Your task to perform on an android device: Add "logitech g903" to the cart on ebay Image 0: 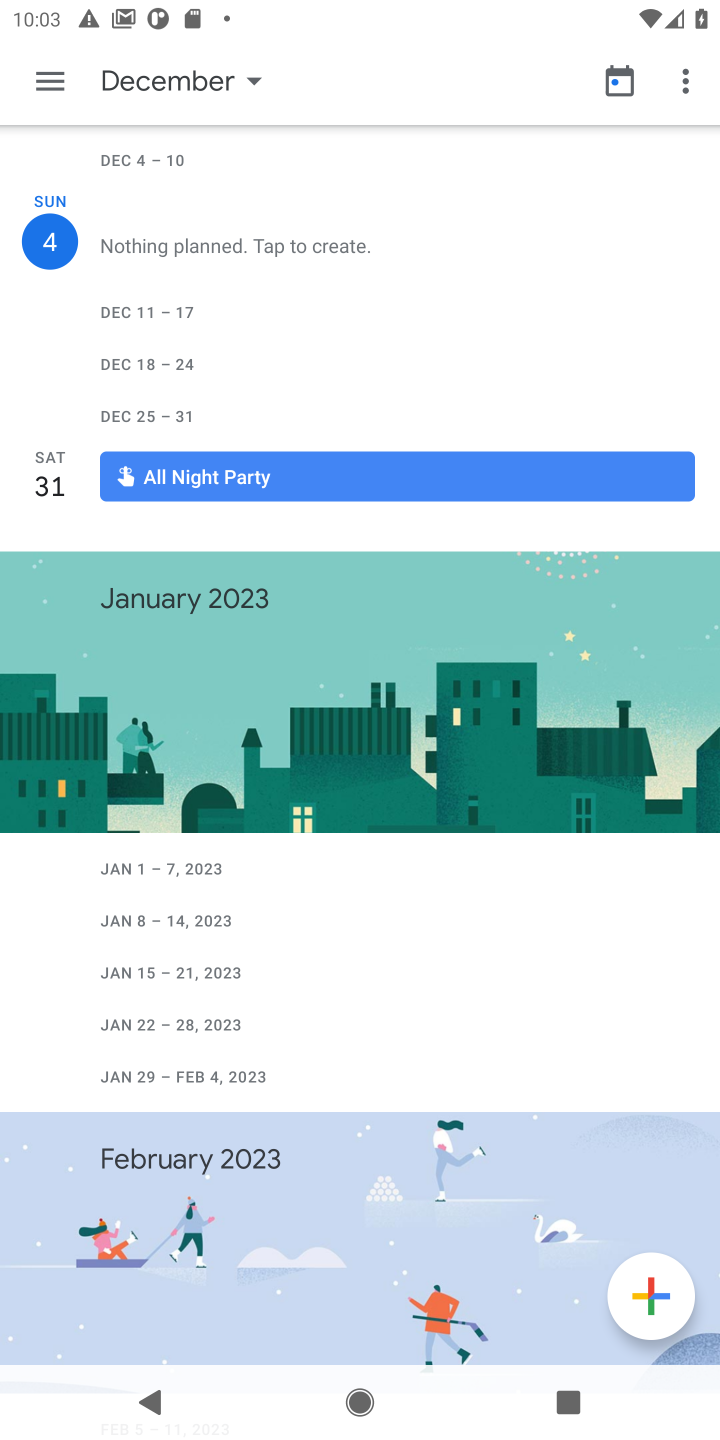
Step 0: press home button
Your task to perform on an android device: Add "logitech g903" to the cart on ebay Image 1: 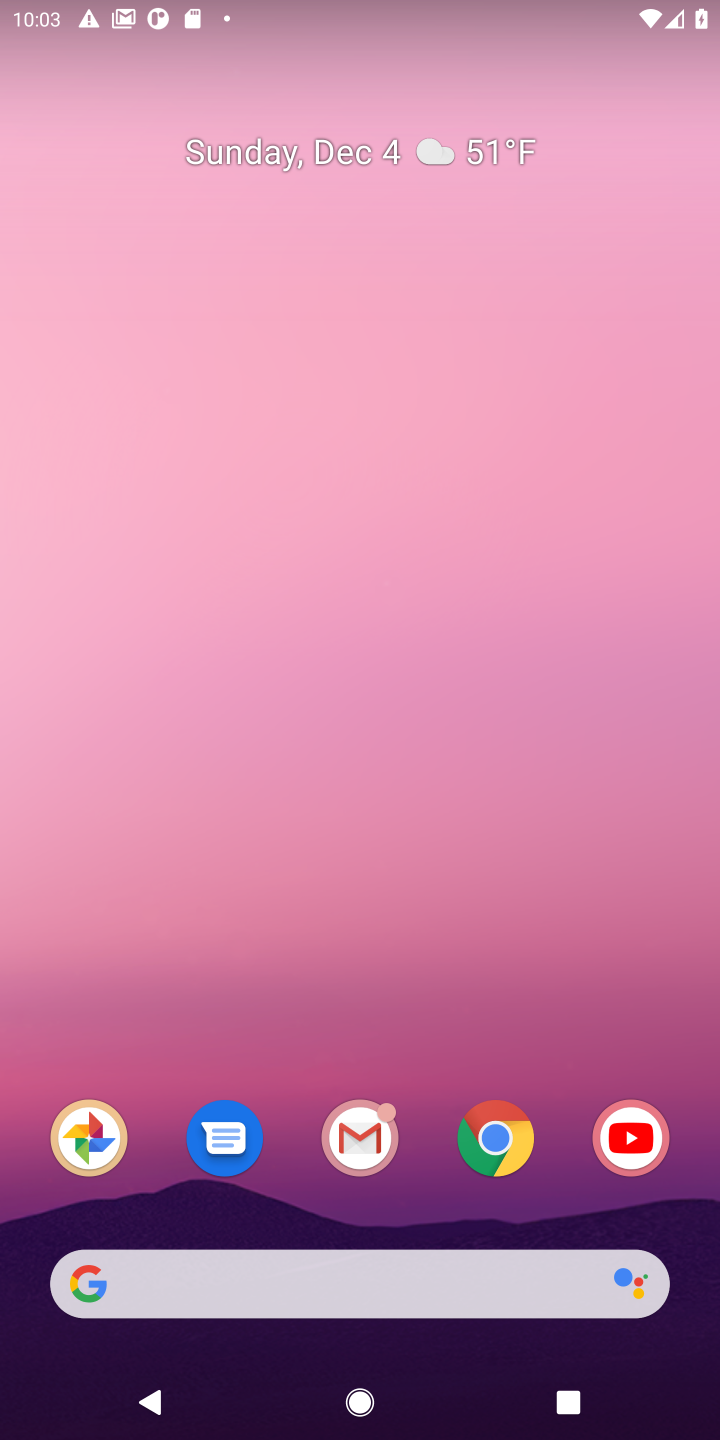
Step 1: click (514, 1138)
Your task to perform on an android device: Add "logitech g903" to the cart on ebay Image 2: 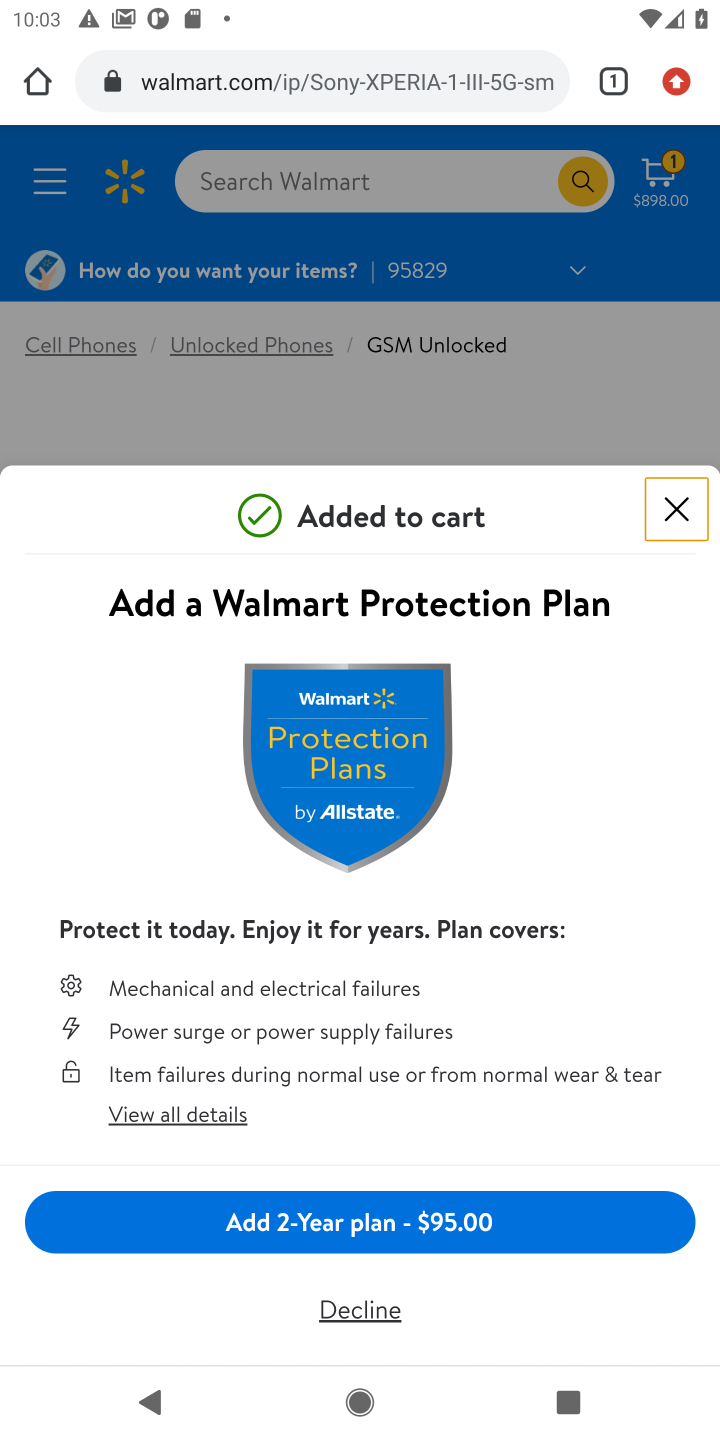
Step 2: click (504, 77)
Your task to perform on an android device: Add "logitech g903" to the cart on ebay Image 3: 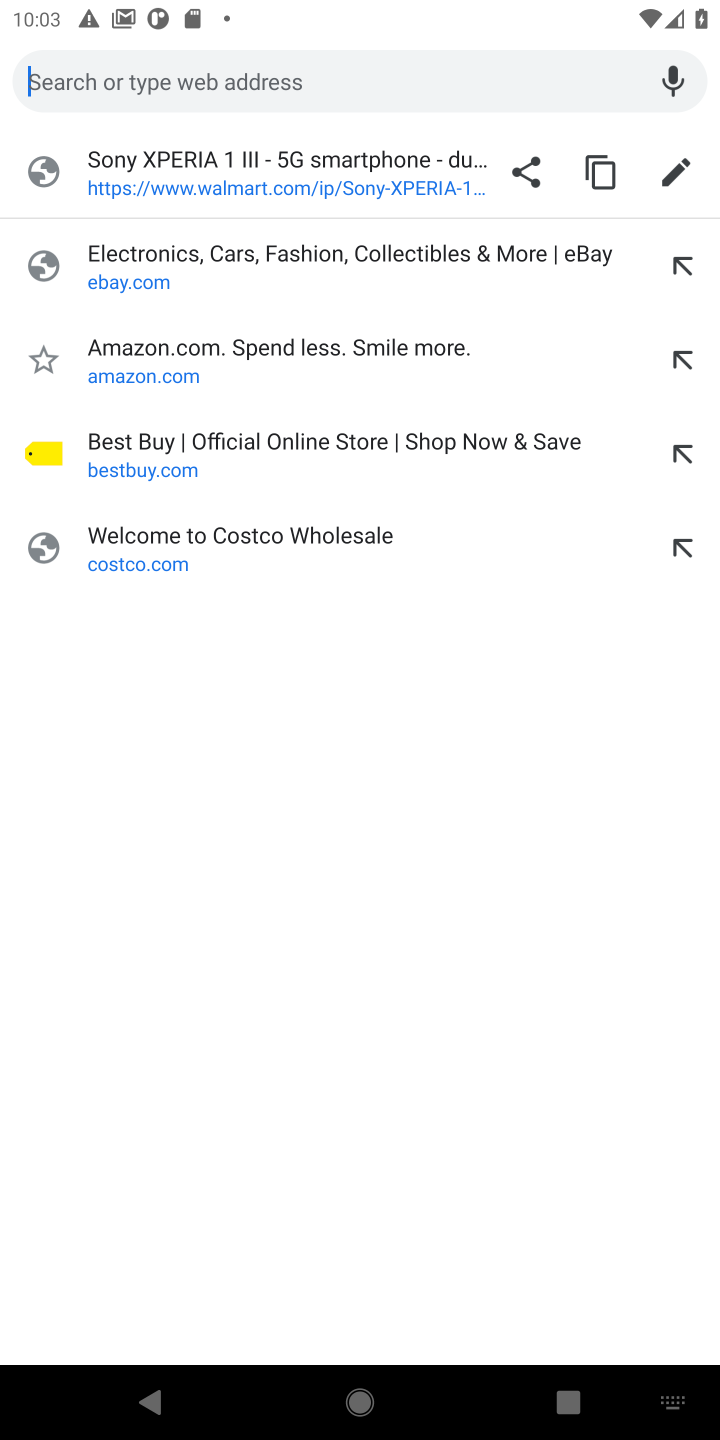
Step 3: click (155, 247)
Your task to perform on an android device: Add "logitech g903" to the cart on ebay Image 4: 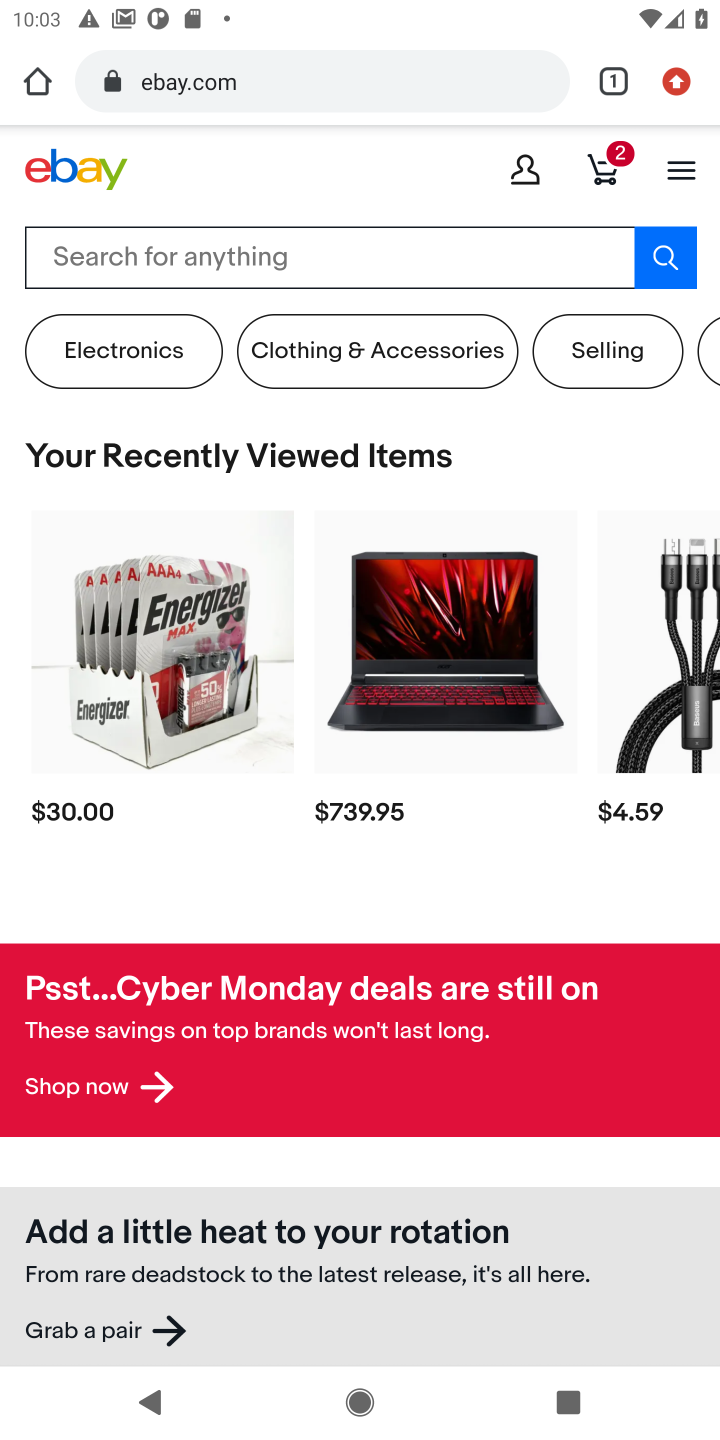
Step 4: click (523, 242)
Your task to perform on an android device: Add "logitech g903" to the cart on ebay Image 5: 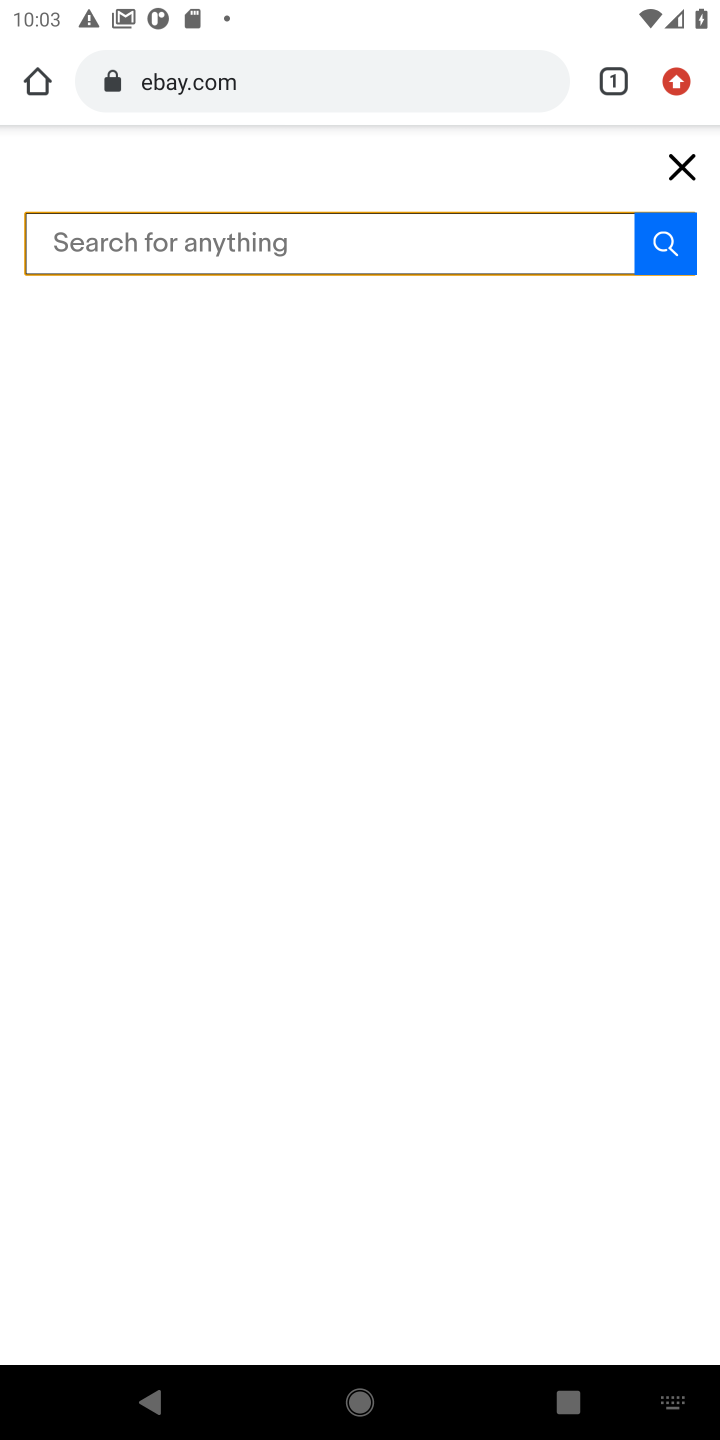
Step 5: type "logitech g903"
Your task to perform on an android device: Add "logitech g903" to the cart on ebay Image 6: 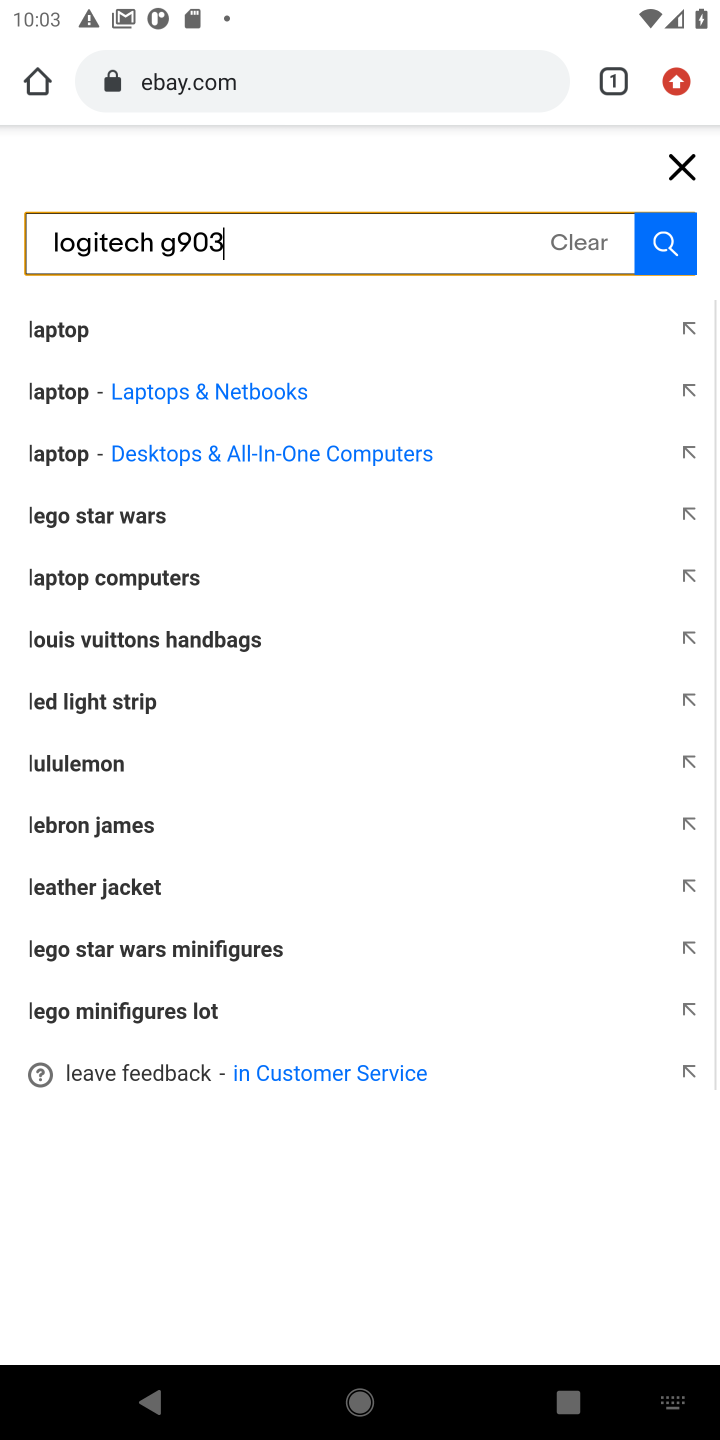
Step 6: press enter
Your task to perform on an android device: Add "logitech g903" to the cart on ebay Image 7: 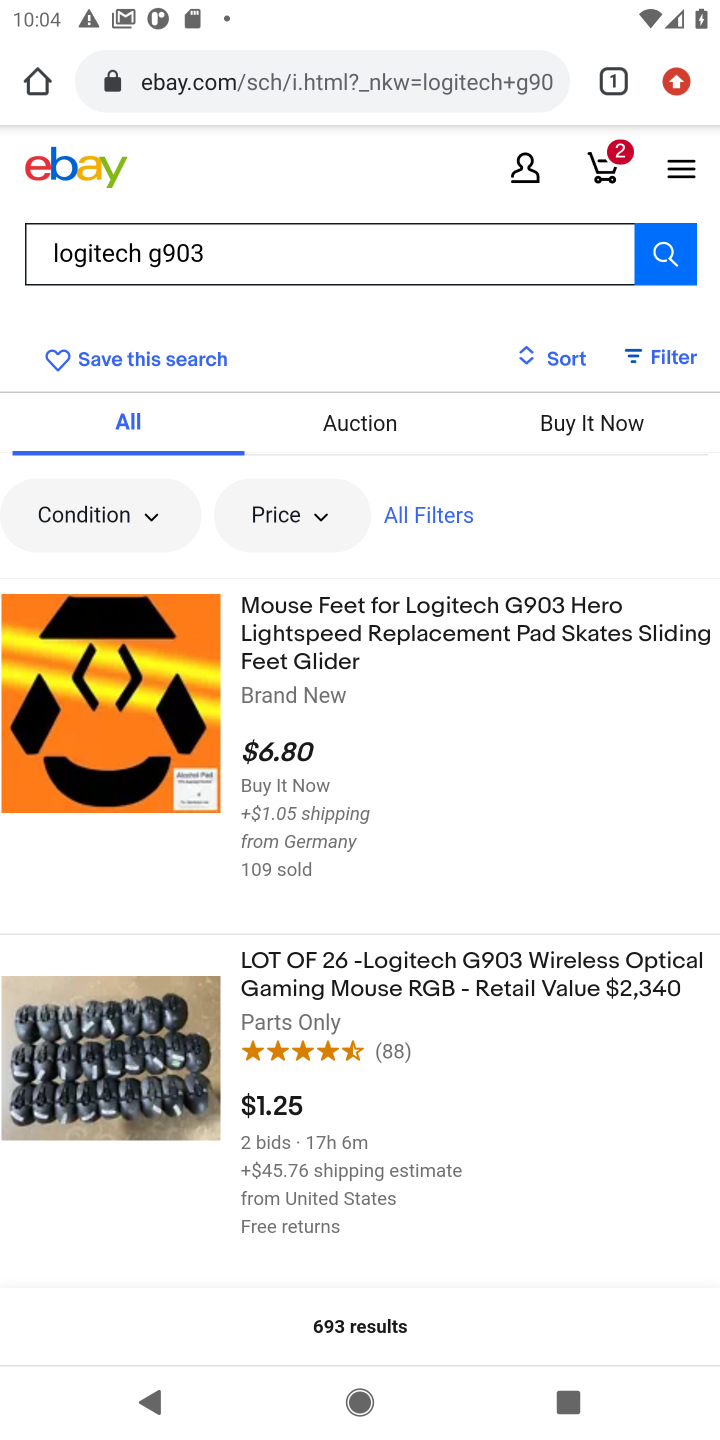
Step 7: click (346, 620)
Your task to perform on an android device: Add "logitech g903" to the cart on ebay Image 8: 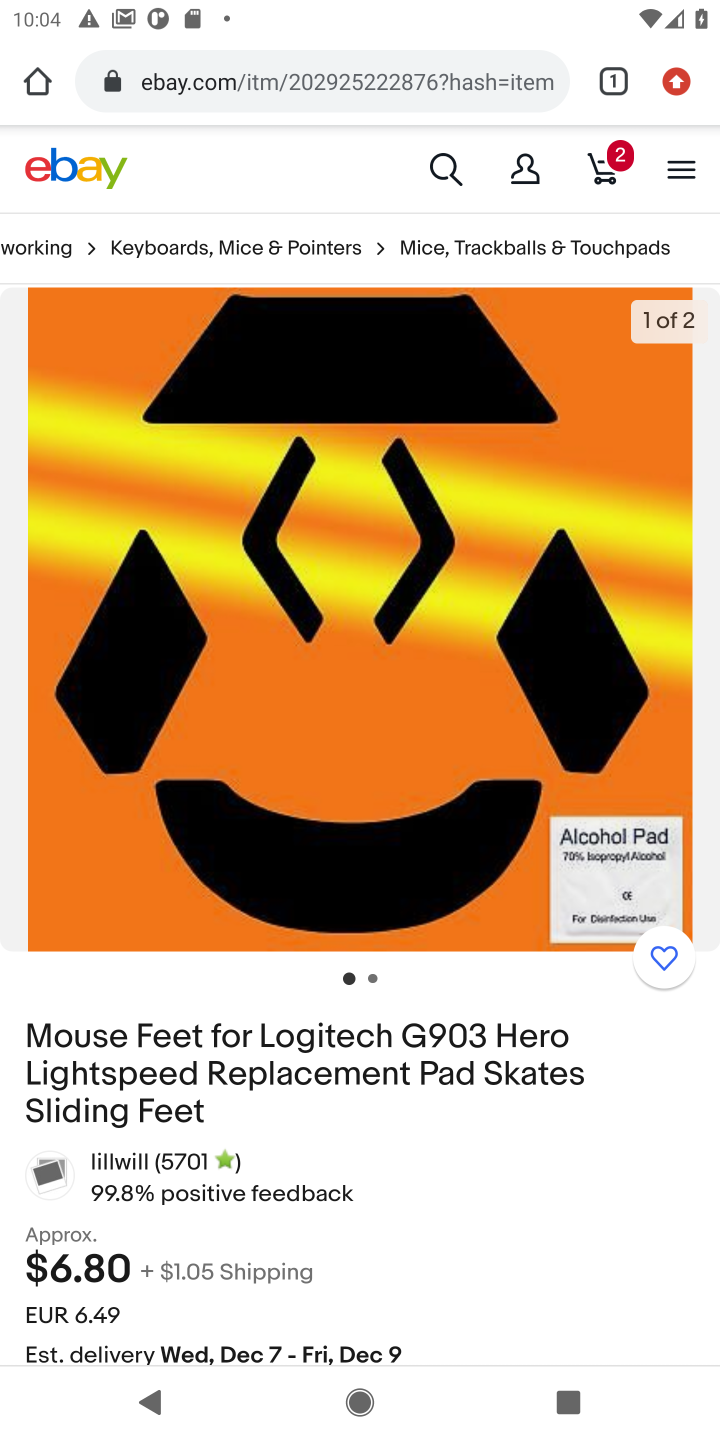
Step 8: press back button
Your task to perform on an android device: Add "logitech g903" to the cart on ebay Image 9: 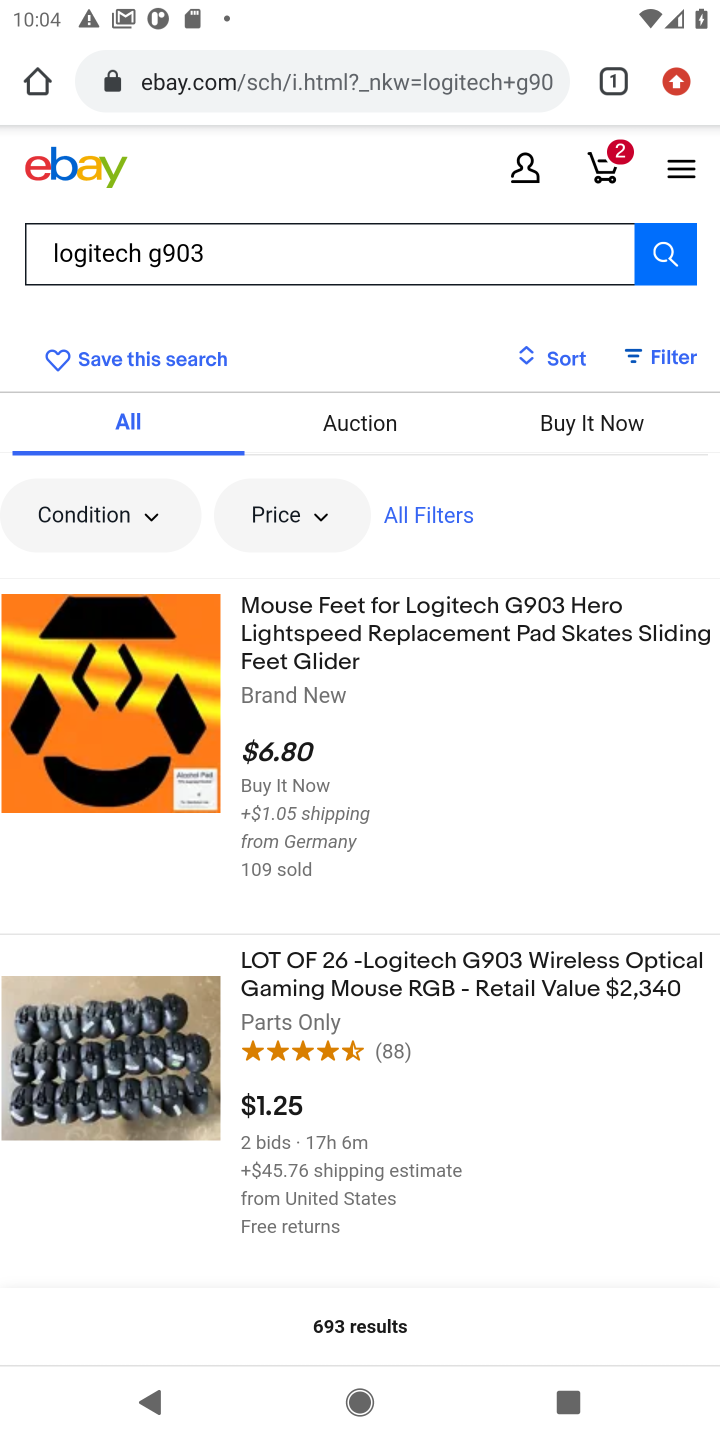
Step 9: drag from (564, 1198) to (532, 480)
Your task to perform on an android device: Add "logitech g903" to the cart on ebay Image 10: 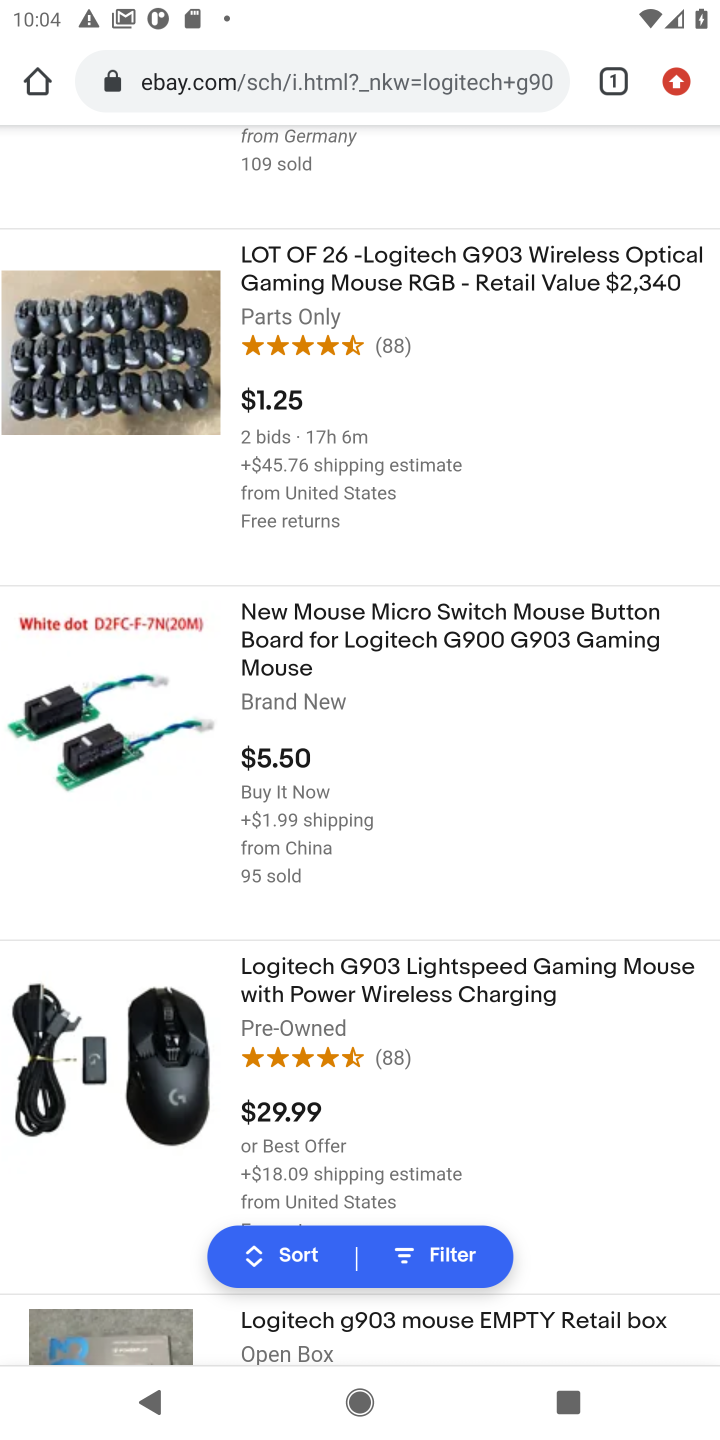
Step 10: click (139, 1034)
Your task to perform on an android device: Add "logitech g903" to the cart on ebay Image 11: 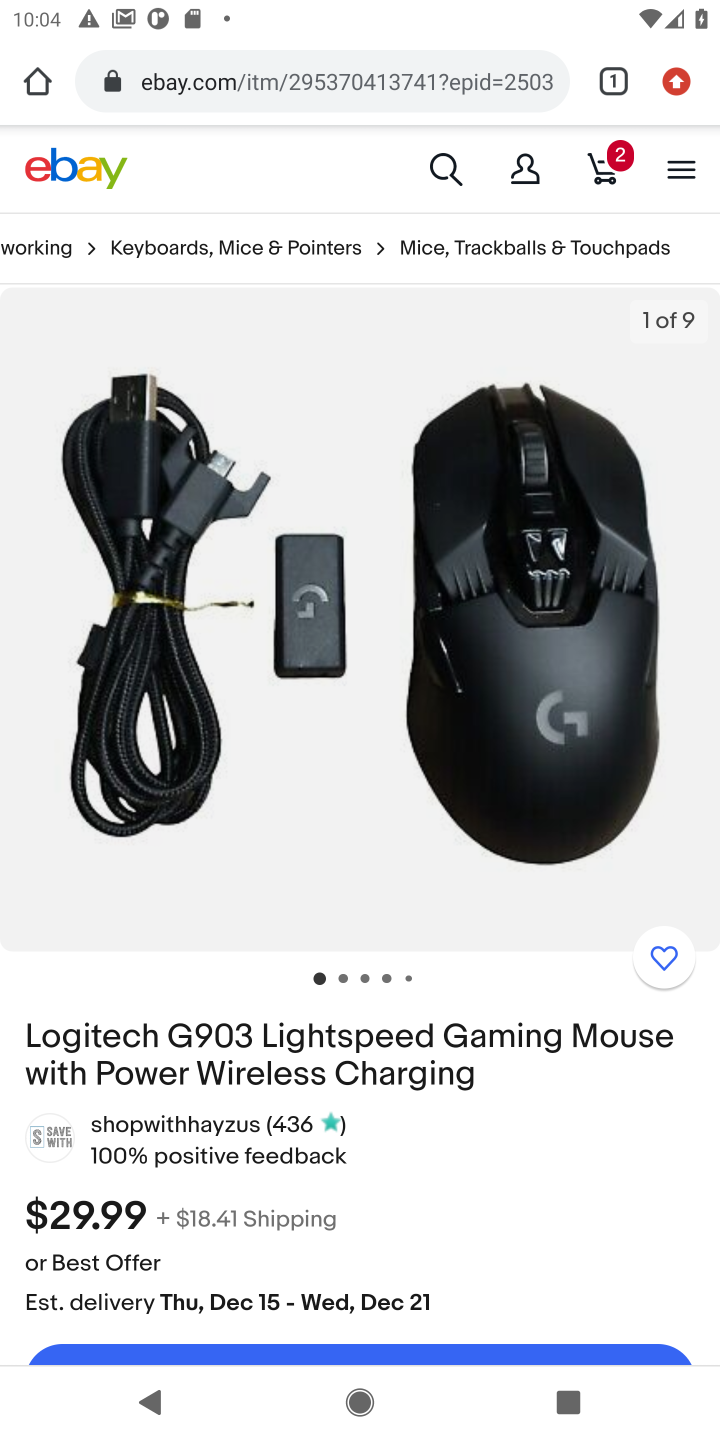
Step 11: drag from (557, 1146) to (465, 641)
Your task to perform on an android device: Add "logitech g903" to the cart on ebay Image 12: 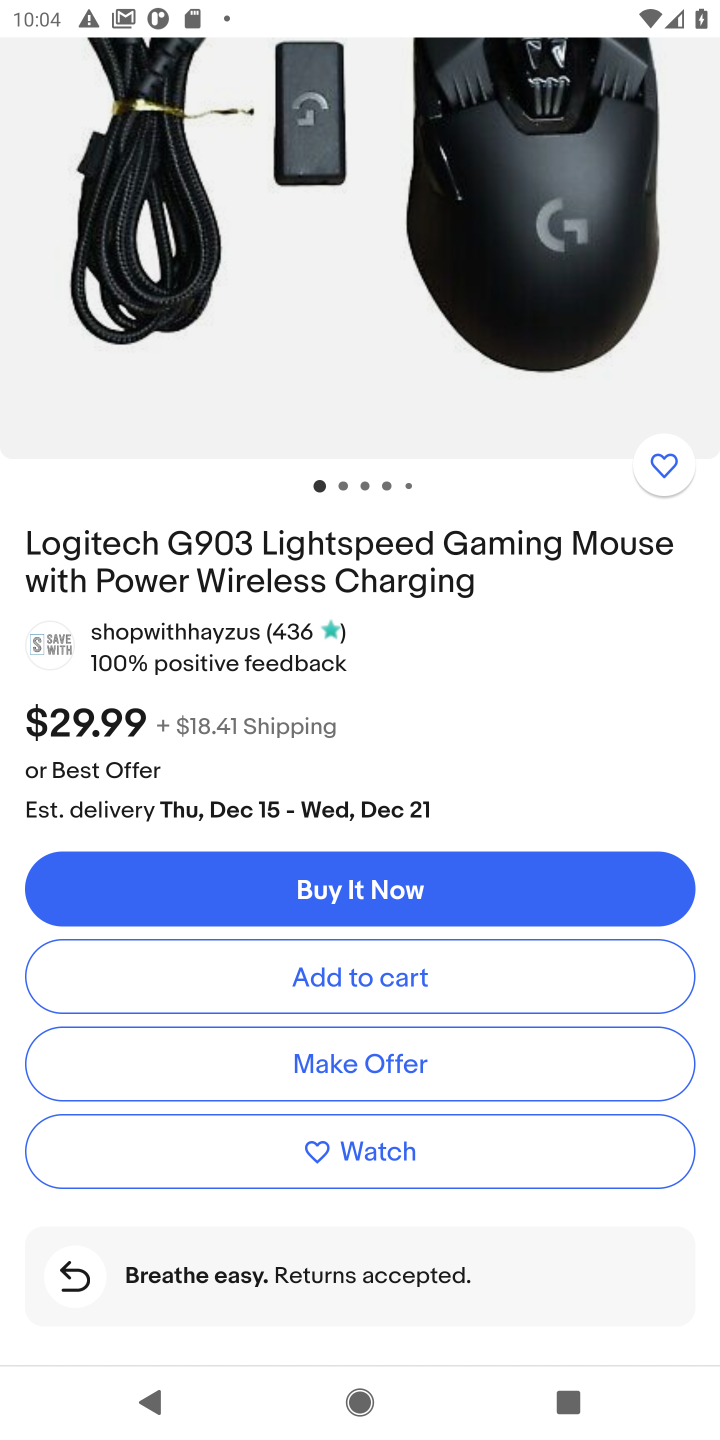
Step 12: click (354, 971)
Your task to perform on an android device: Add "logitech g903" to the cart on ebay Image 13: 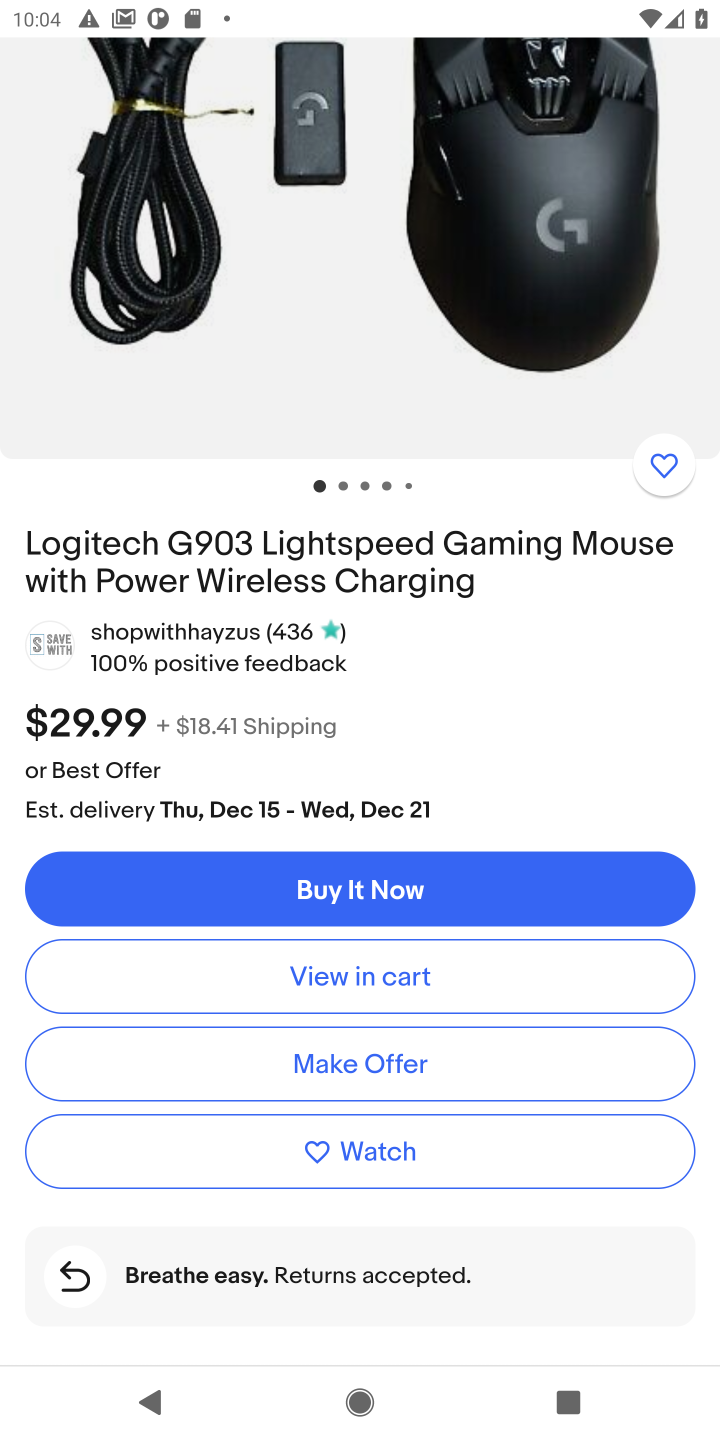
Step 13: click (349, 971)
Your task to perform on an android device: Add "logitech g903" to the cart on ebay Image 14: 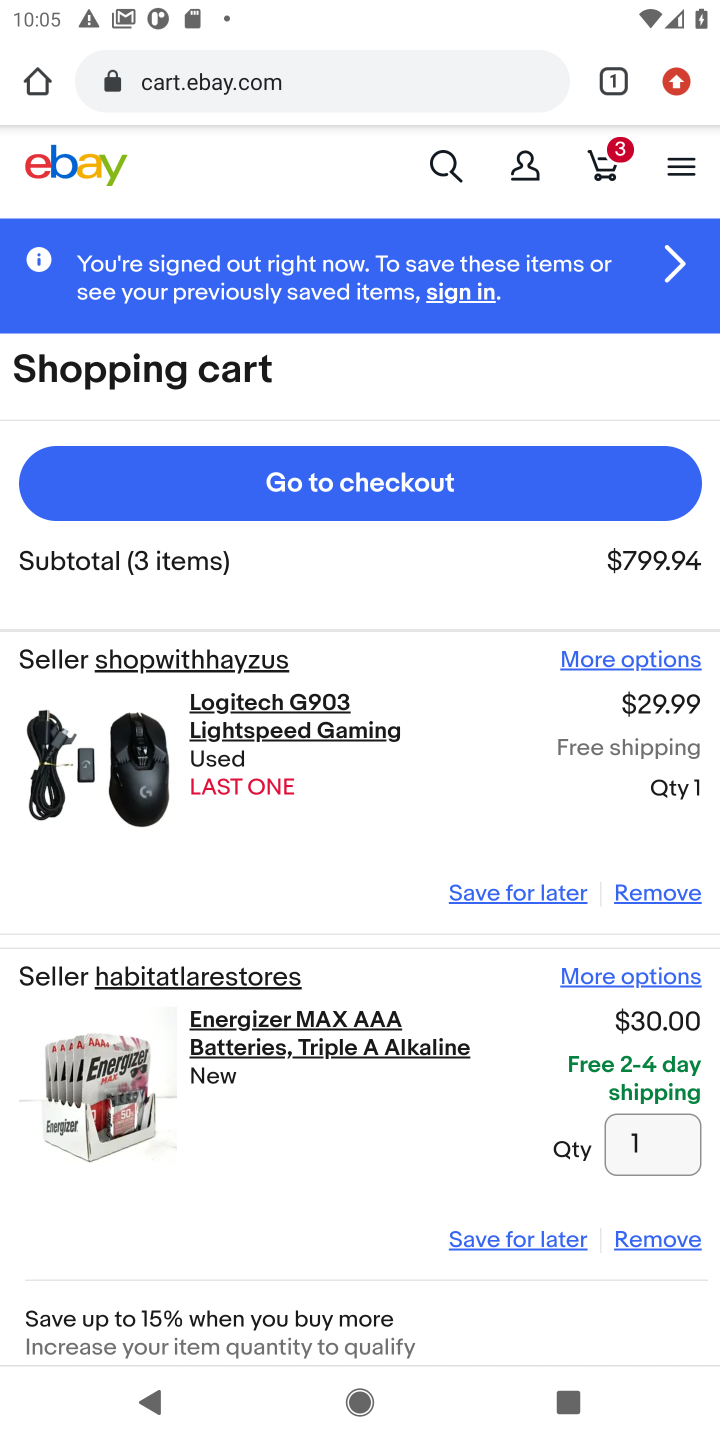
Step 14: task complete